Your task to perform on an android device: Go to Reddit.com Image 0: 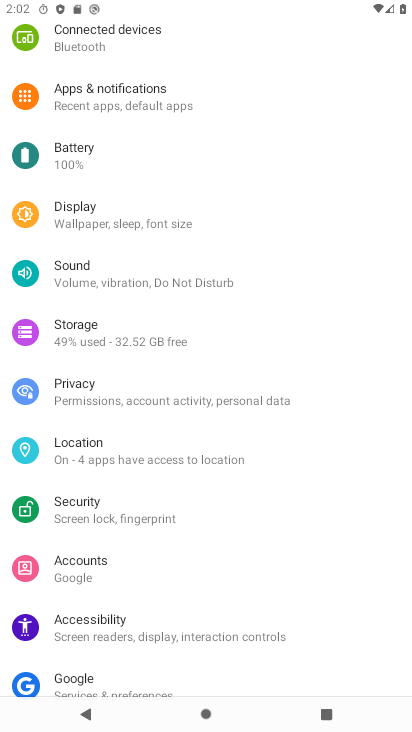
Step 0: press home button
Your task to perform on an android device: Go to Reddit.com Image 1: 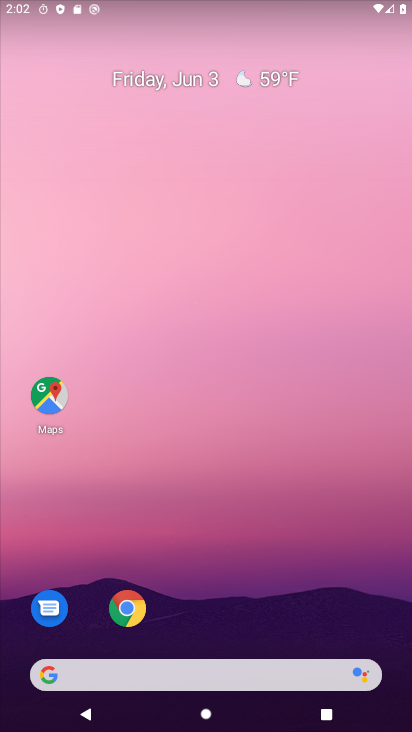
Step 1: click (120, 629)
Your task to perform on an android device: Go to Reddit.com Image 2: 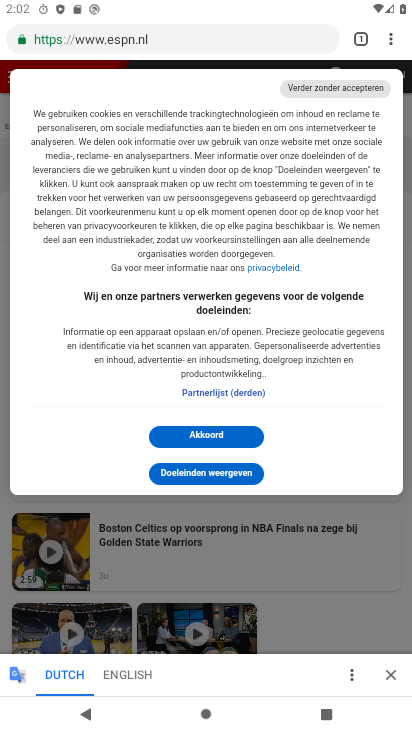
Step 2: click (155, 34)
Your task to perform on an android device: Go to Reddit.com Image 3: 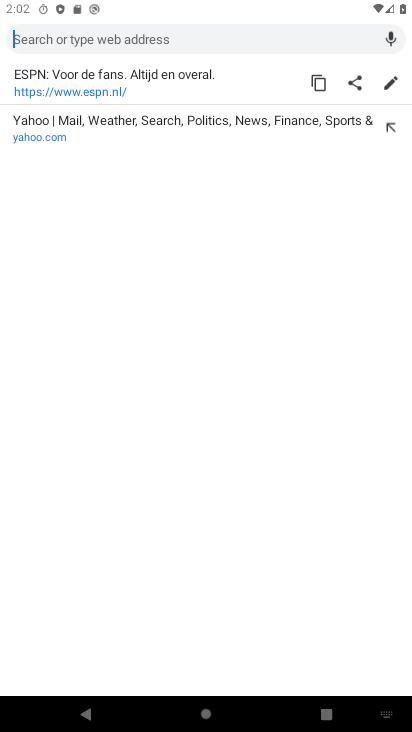
Step 3: type "reddit.com"
Your task to perform on an android device: Go to Reddit.com Image 4: 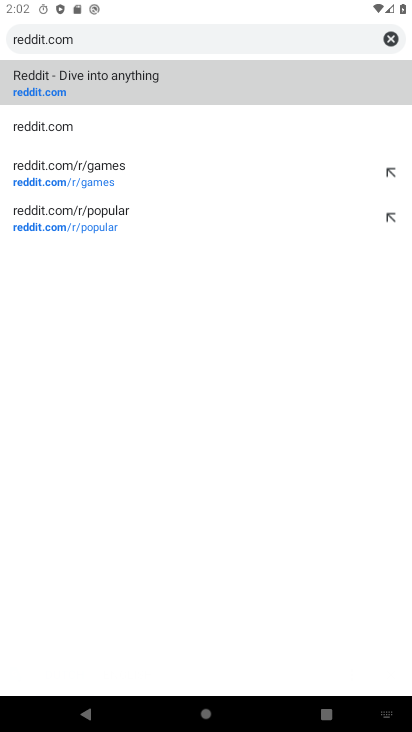
Step 4: click (174, 91)
Your task to perform on an android device: Go to Reddit.com Image 5: 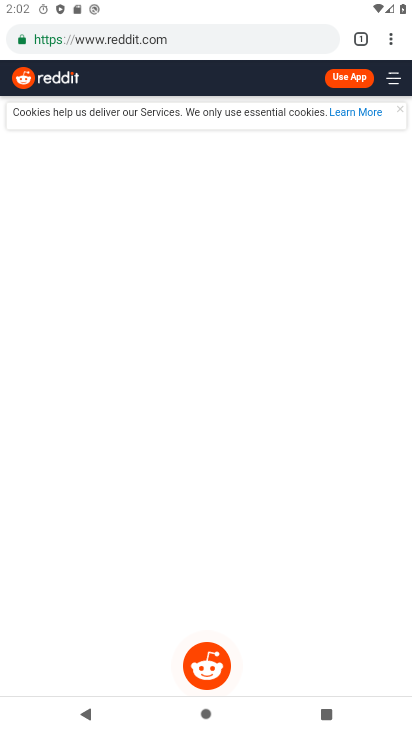
Step 5: task complete